Your task to perform on an android device: change the clock style Image 0: 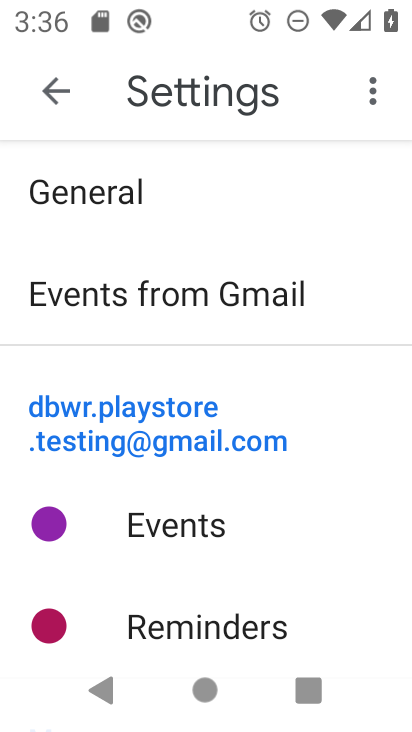
Step 0: press home button
Your task to perform on an android device: change the clock style Image 1: 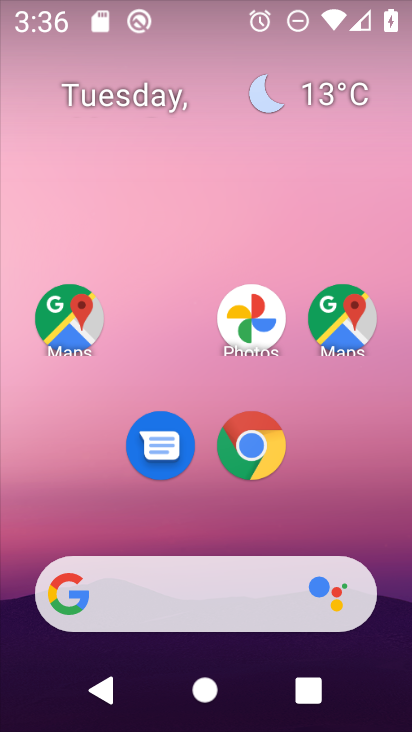
Step 1: drag from (367, 534) to (388, 154)
Your task to perform on an android device: change the clock style Image 2: 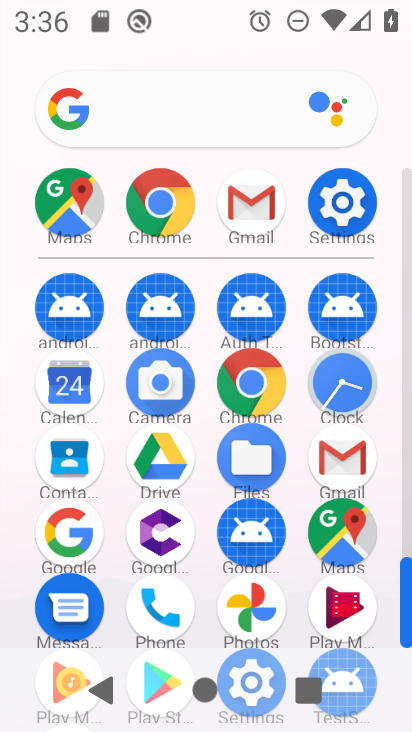
Step 2: click (349, 399)
Your task to perform on an android device: change the clock style Image 3: 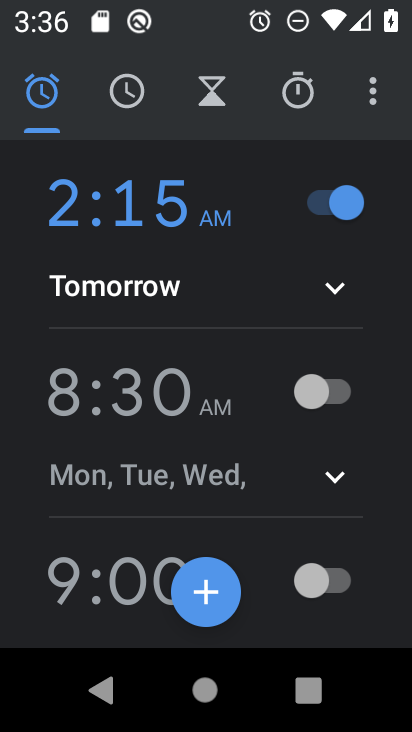
Step 3: click (375, 110)
Your task to perform on an android device: change the clock style Image 4: 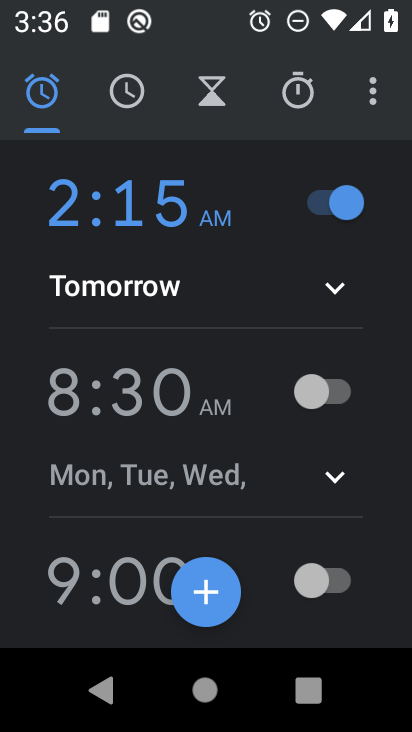
Step 4: click (376, 93)
Your task to perform on an android device: change the clock style Image 5: 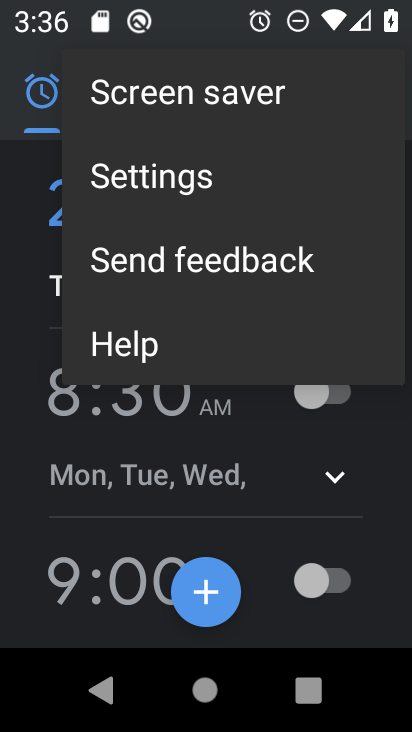
Step 5: click (287, 183)
Your task to perform on an android device: change the clock style Image 6: 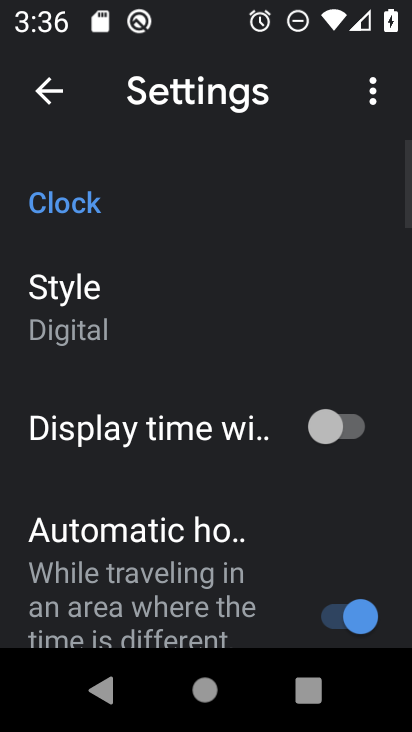
Step 6: drag from (262, 521) to (283, 397)
Your task to perform on an android device: change the clock style Image 7: 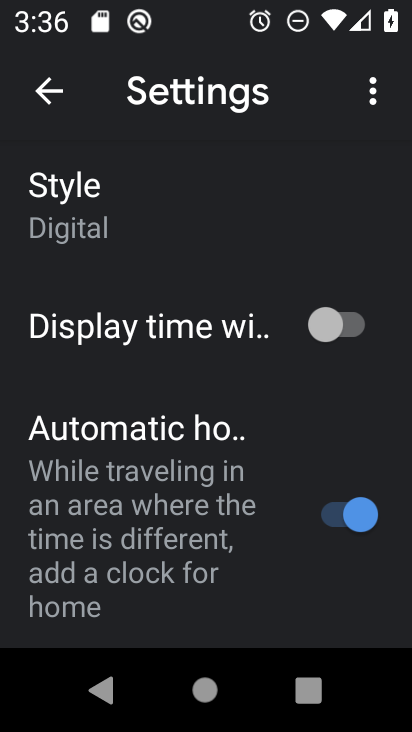
Step 7: drag from (299, 577) to (299, 451)
Your task to perform on an android device: change the clock style Image 8: 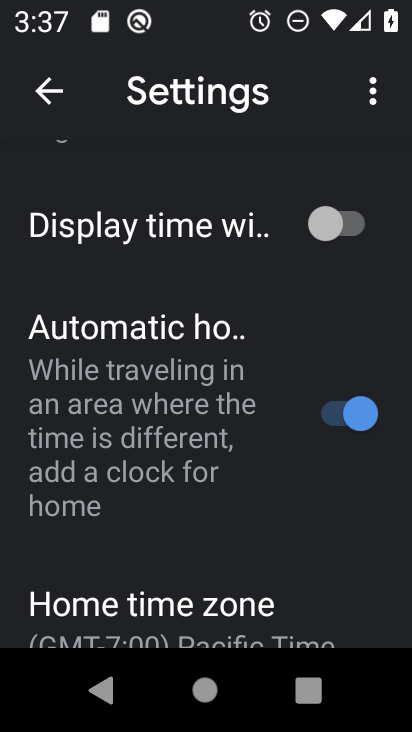
Step 8: drag from (286, 558) to (282, 429)
Your task to perform on an android device: change the clock style Image 9: 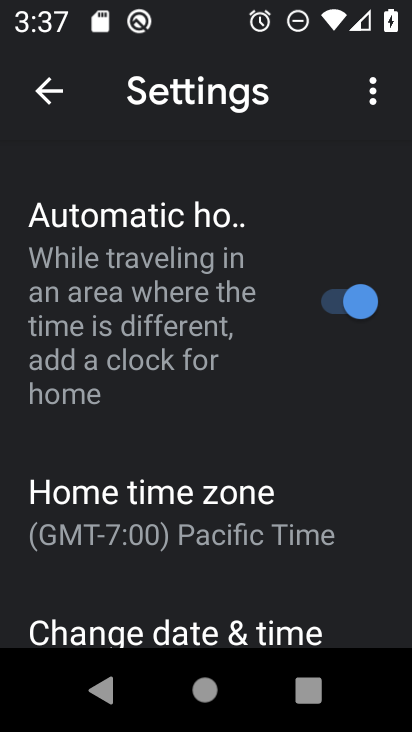
Step 9: drag from (274, 573) to (280, 510)
Your task to perform on an android device: change the clock style Image 10: 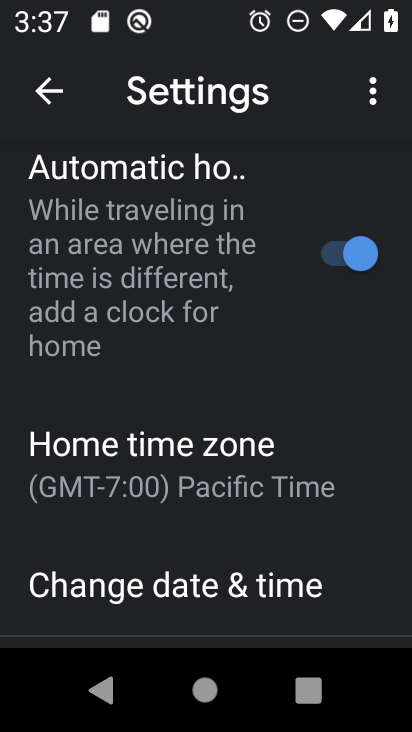
Step 10: drag from (287, 561) to (291, 505)
Your task to perform on an android device: change the clock style Image 11: 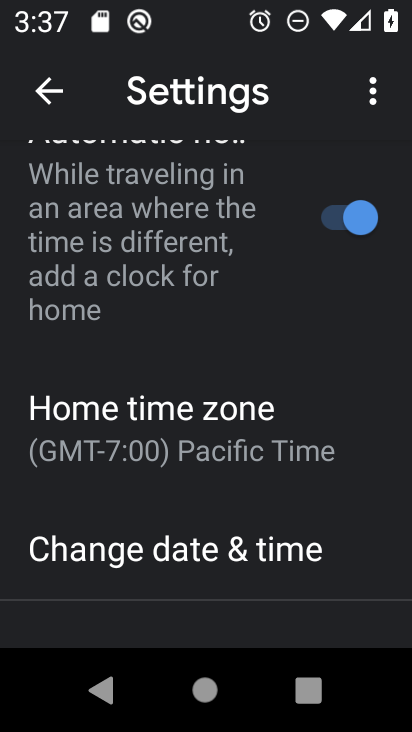
Step 11: drag from (305, 578) to (310, 514)
Your task to perform on an android device: change the clock style Image 12: 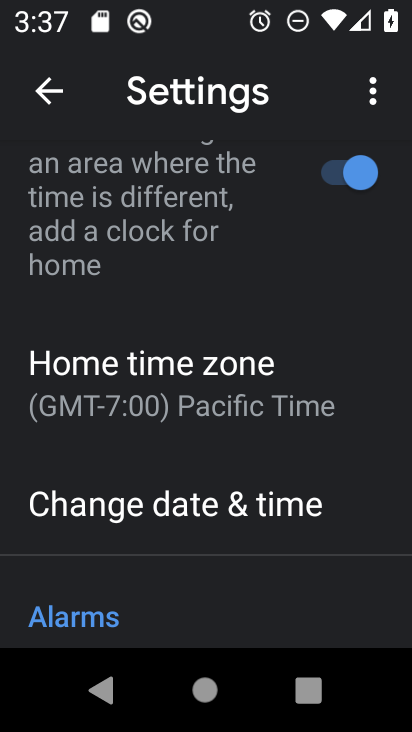
Step 12: drag from (310, 576) to (317, 517)
Your task to perform on an android device: change the clock style Image 13: 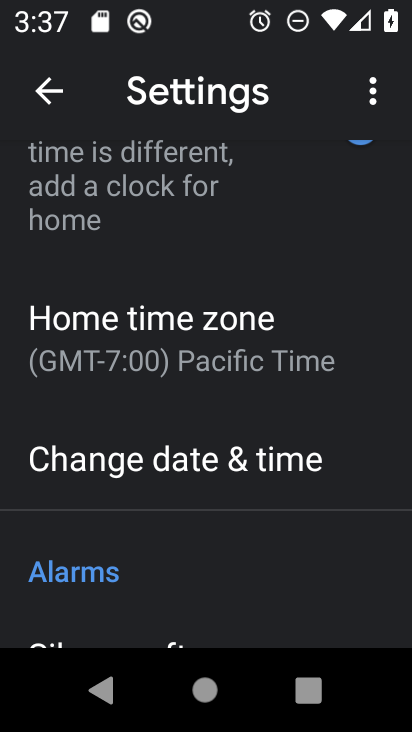
Step 13: drag from (318, 570) to (319, 498)
Your task to perform on an android device: change the clock style Image 14: 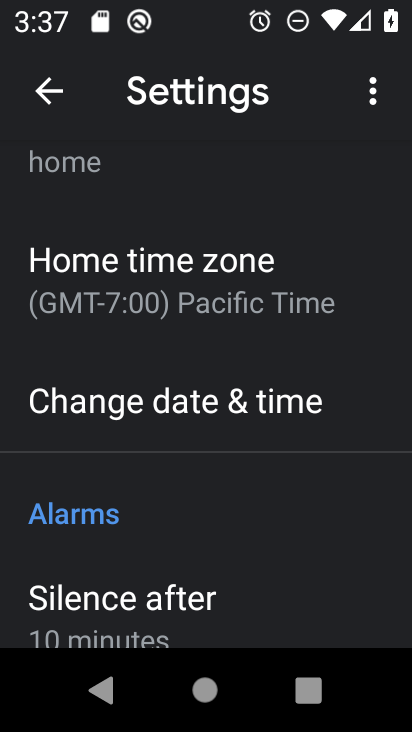
Step 14: drag from (324, 505) to (349, 394)
Your task to perform on an android device: change the clock style Image 15: 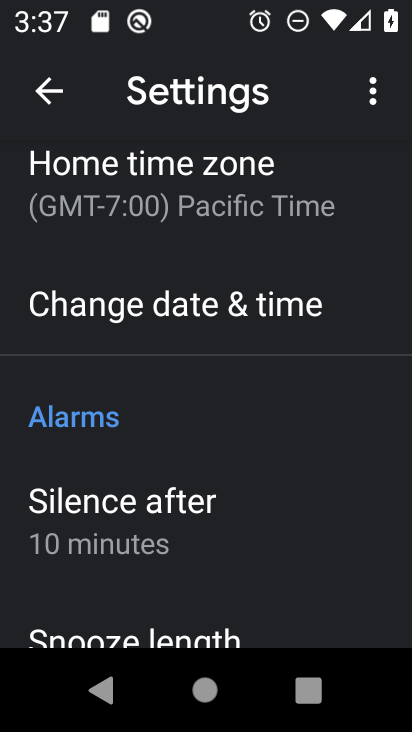
Step 15: drag from (361, 565) to (361, 495)
Your task to perform on an android device: change the clock style Image 16: 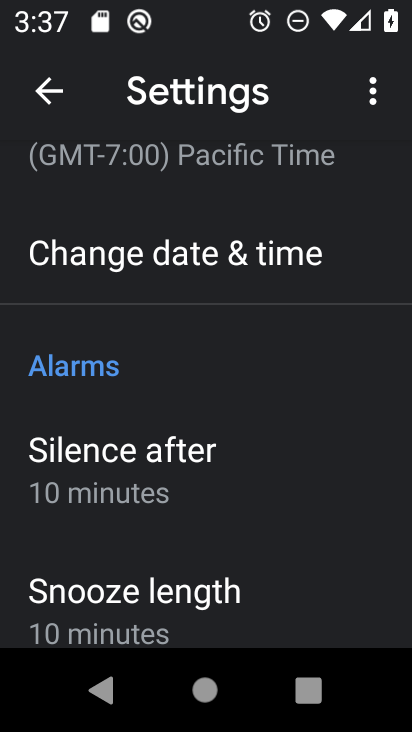
Step 16: drag from (354, 601) to (351, 509)
Your task to perform on an android device: change the clock style Image 17: 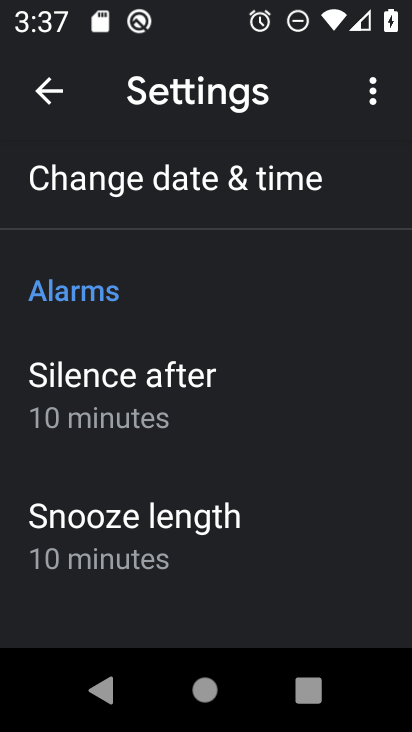
Step 17: drag from (366, 613) to (364, 523)
Your task to perform on an android device: change the clock style Image 18: 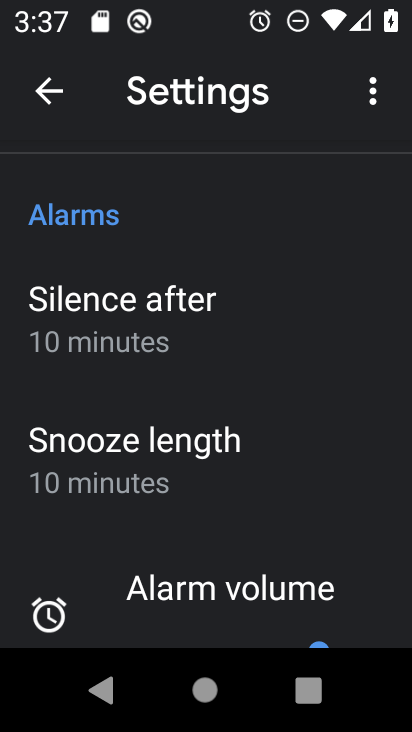
Step 18: drag from (359, 603) to (359, 509)
Your task to perform on an android device: change the clock style Image 19: 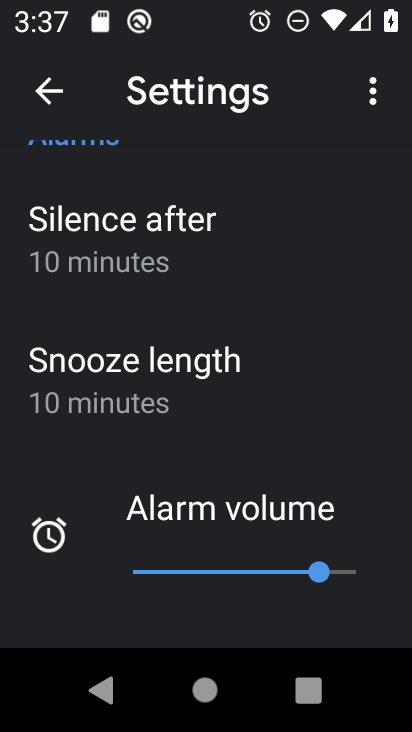
Step 19: drag from (355, 608) to (355, 512)
Your task to perform on an android device: change the clock style Image 20: 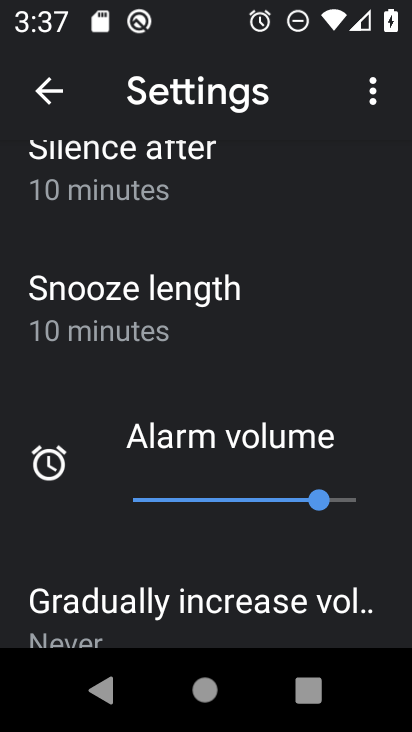
Step 20: drag from (365, 611) to (382, 507)
Your task to perform on an android device: change the clock style Image 21: 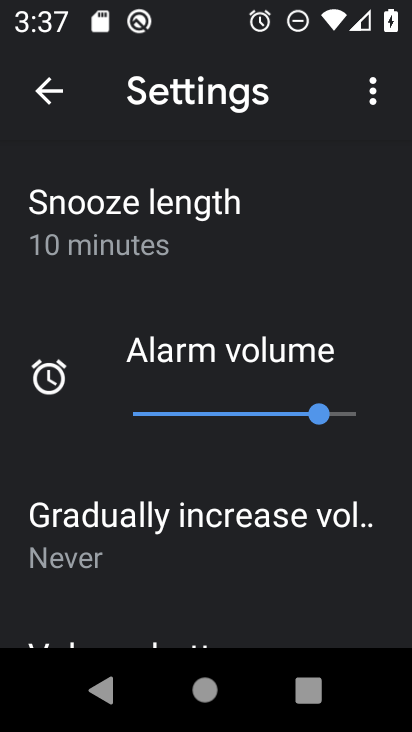
Step 21: drag from (377, 305) to (376, 403)
Your task to perform on an android device: change the clock style Image 22: 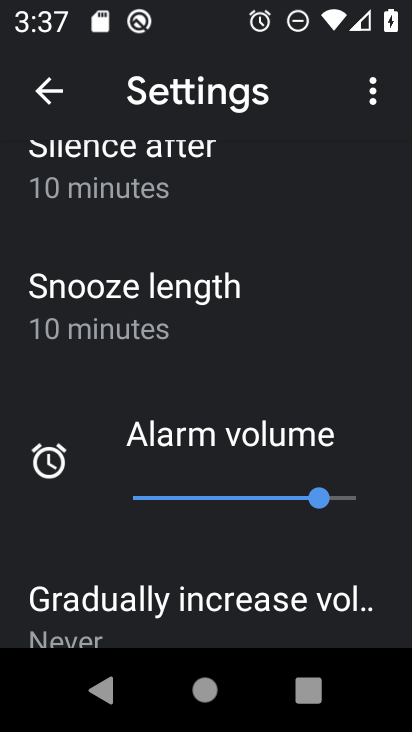
Step 22: drag from (376, 328) to (374, 428)
Your task to perform on an android device: change the clock style Image 23: 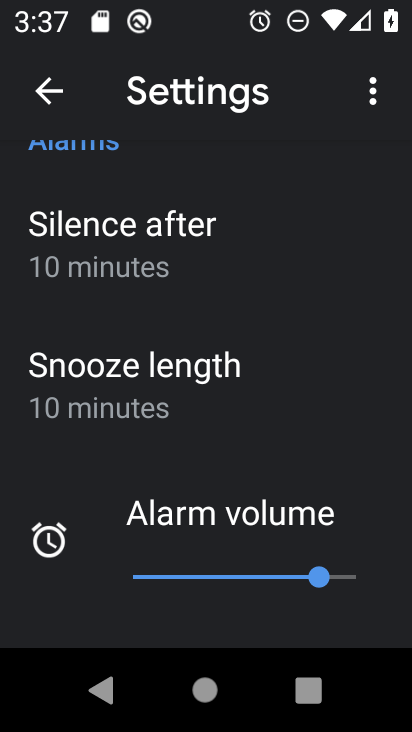
Step 23: drag from (374, 294) to (355, 413)
Your task to perform on an android device: change the clock style Image 24: 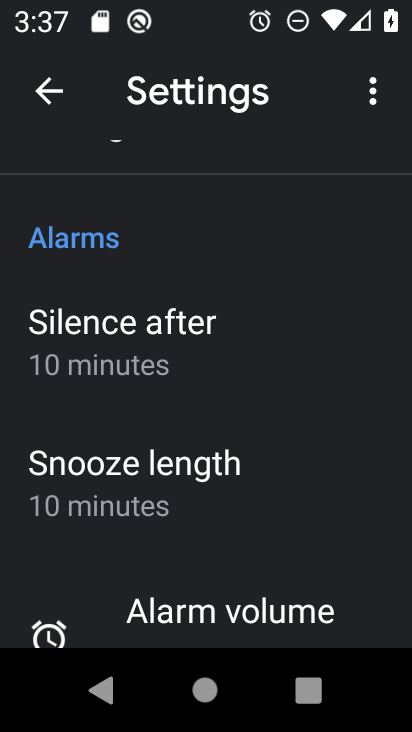
Step 24: drag from (363, 303) to (355, 396)
Your task to perform on an android device: change the clock style Image 25: 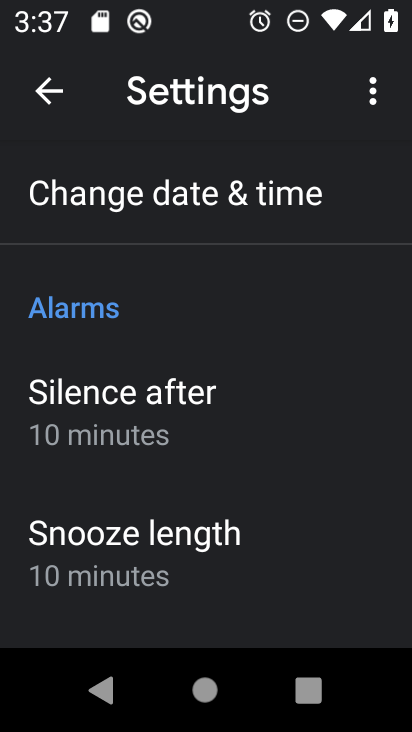
Step 25: drag from (362, 278) to (357, 367)
Your task to perform on an android device: change the clock style Image 26: 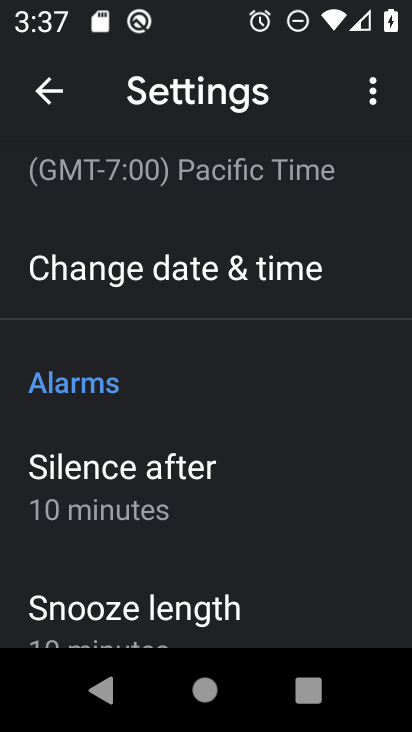
Step 26: drag from (354, 282) to (352, 373)
Your task to perform on an android device: change the clock style Image 27: 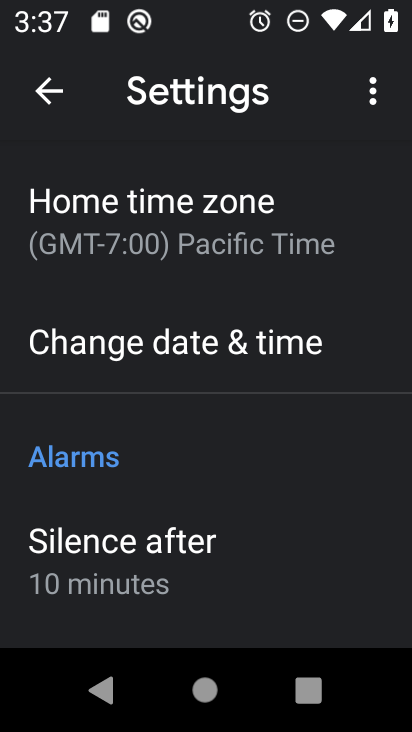
Step 27: drag from (366, 246) to (367, 332)
Your task to perform on an android device: change the clock style Image 28: 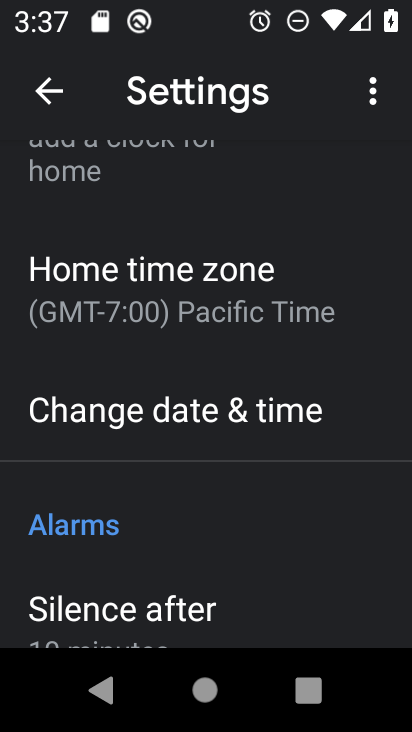
Step 28: drag from (369, 252) to (364, 340)
Your task to perform on an android device: change the clock style Image 29: 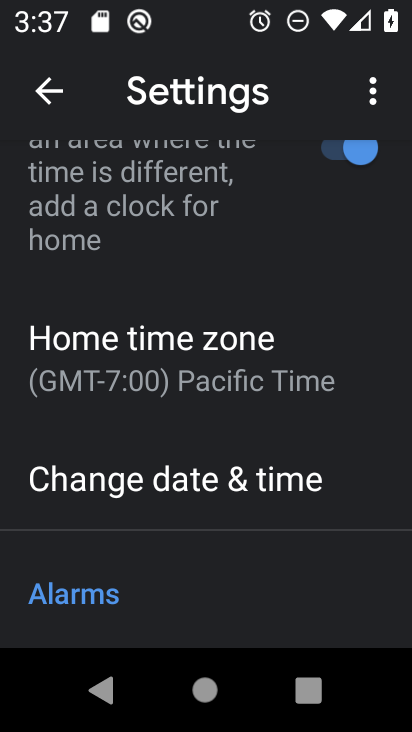
Step 29: drag from (362, 244) to (356, 335)
Your task to perform on an android device: change the clock style Image 30: 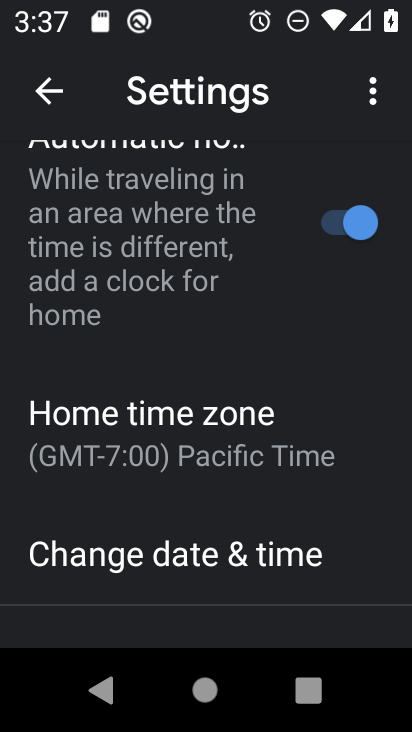
Step 30: drag from (308, 257) to (305, 331)
Your task to perform on an android device: change the clock style Image 31: 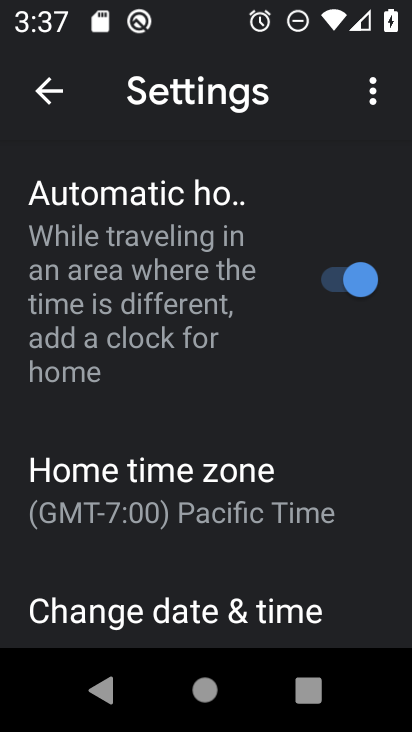
Step 31: drag from (299, 205) to (295, 304)
Your task to perform on an android device: change the clock style Image 32: 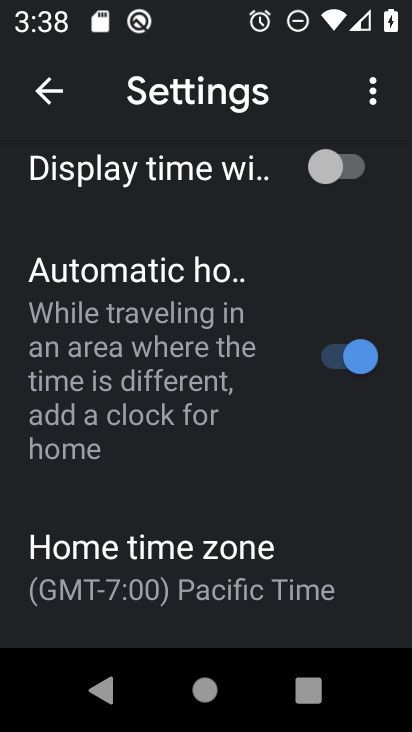
Step 32: drag from (290, 230) to (281, 317)
Your task to perform on an android device: change the clock style Image 33: 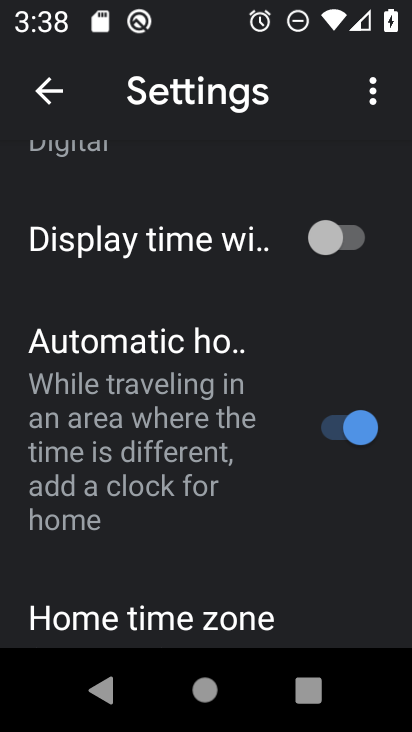
Step 33: drag from (283, 200) to (272, 311)
Your task to perform on an android device: change the clock style Image 34: 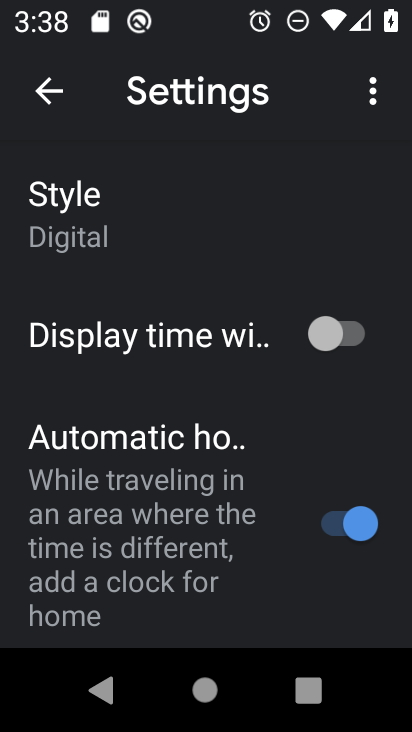
Step 34: click (127, 241)
Your task to perform on an android device: change the clock style Image 35: 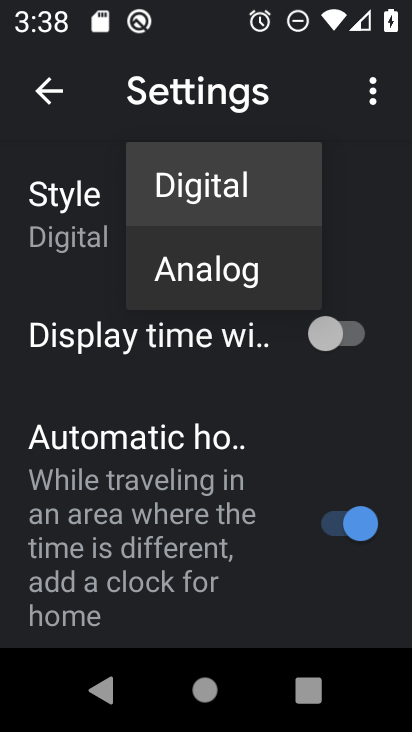
Step 35: click (156, 279)
Your task to perform on an android device: change the clock style Image 36: 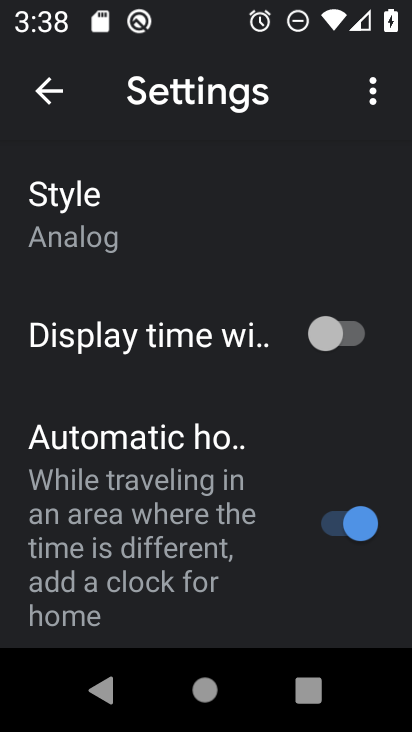
Step 36: task complete